Your task to perform on an android device: open the mobile data screen to see how much data has been used Image 0: 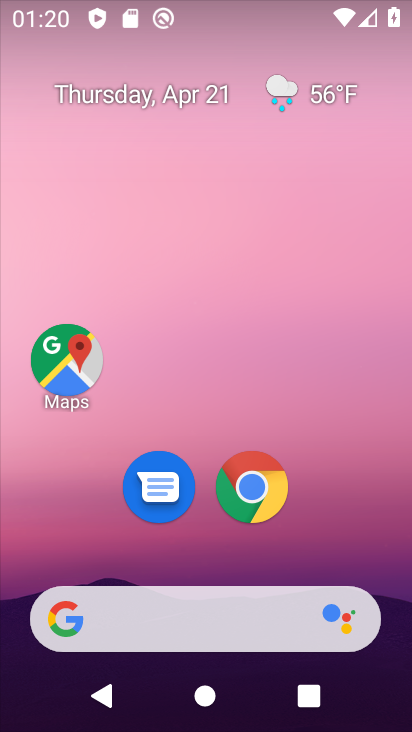
Step 0: drag from (295, 545) to (304, 63)
Your task to perform on an android device: open the mobile data screen to see how much data has been used Image 1: 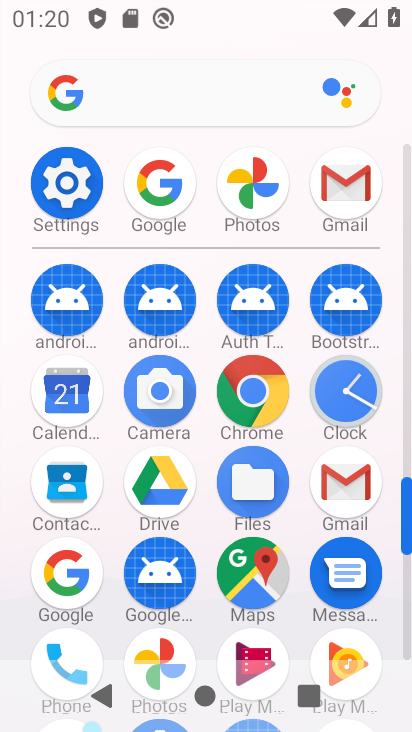
Step 1: click (92, 172)
Your task to perform on an android device: open the mobile data screen to see how much data has been used Image 2: 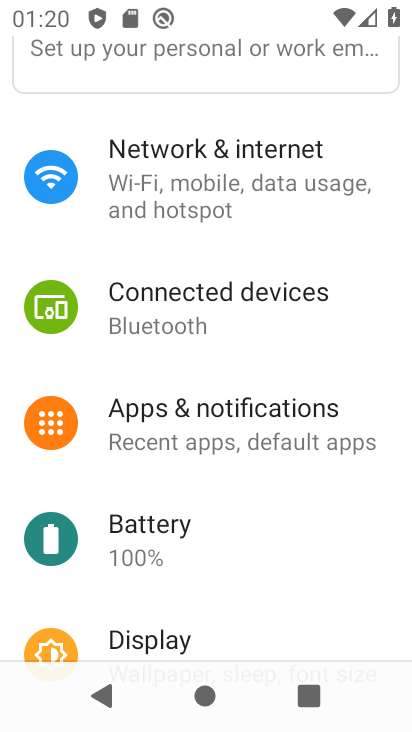
Step 2: click (186, 174)
Your task to perform on an android device: open the mobile data screen to see how much data has been used Image 3: 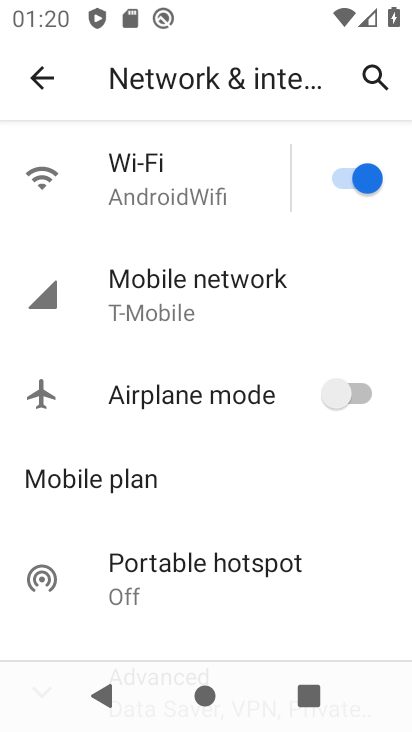
Step 3: click (176, 281)
Your task to perform on an android device: open the mobile data screen to see how much data has been used Image 4: 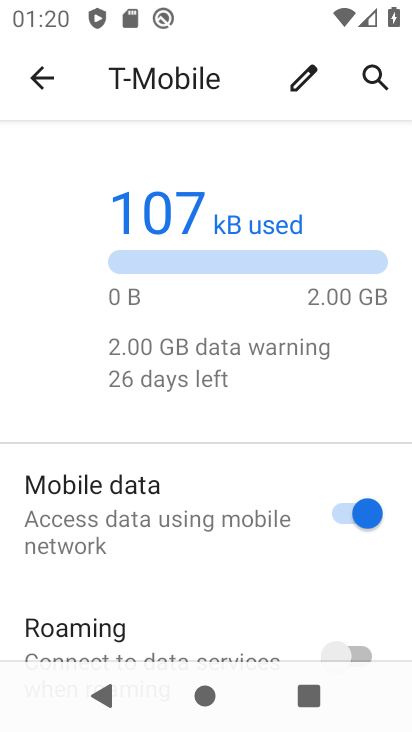
Step 4: drag from (148, 500) to (226, 257)
Your task to perform on an android device: open the mobile data screen to see how much data has been used Image 5: 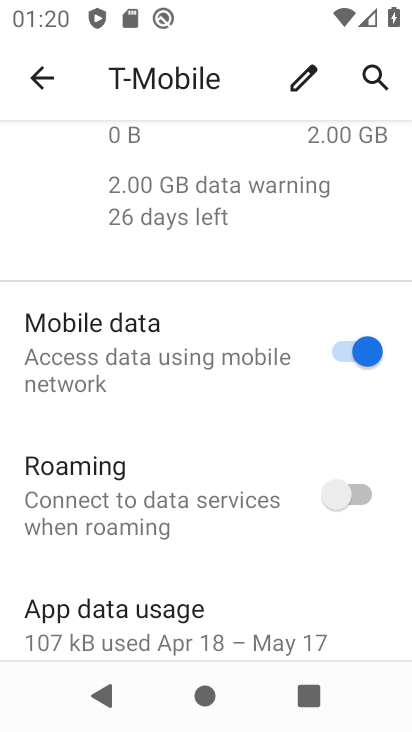
Step 5: click (187, 608)
Your task to perform on an android device: open the mobile data screen to see how much data has been used Image 6: 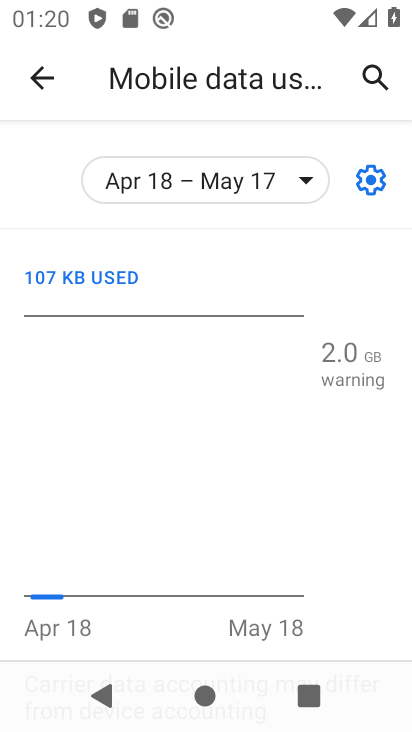
Step 6: task complete